Your task to perform on an android device: turn smart compose on in the gmail app Image 0: 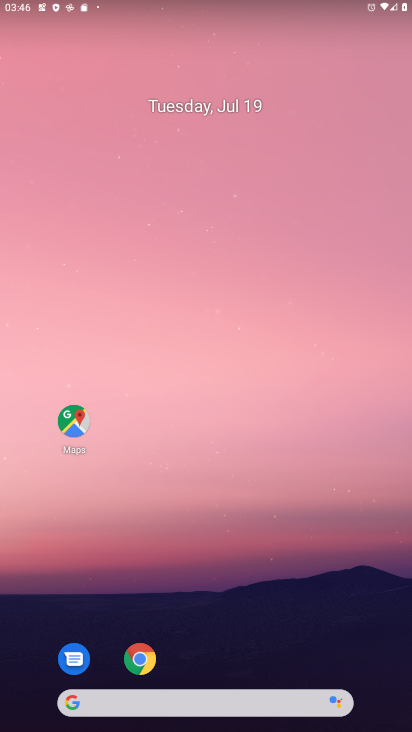
Step 0: press home button
Your task to perform on an android device: turn smart compose on in the gmail app Image 1: 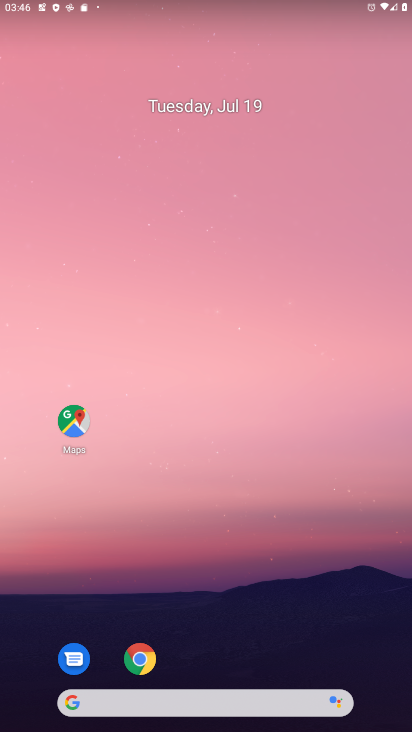
Step 1: press home button
Your task to perform on an android device: turn smart compose on in the gmail app Image 2: 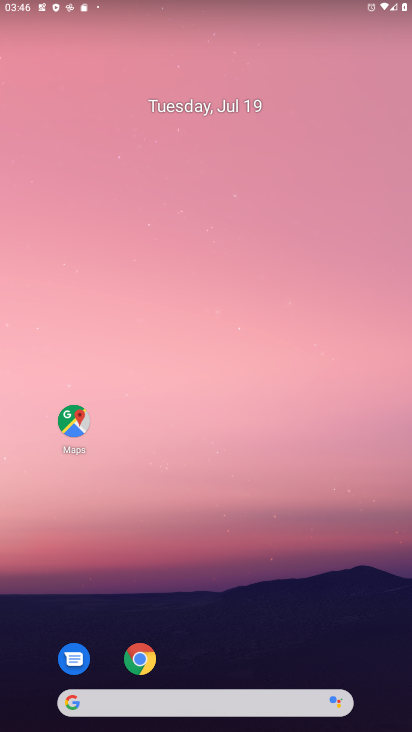
Step 2: press home button
Your task to perform on an android device: turn smart compose on in the gmail app Image 3: 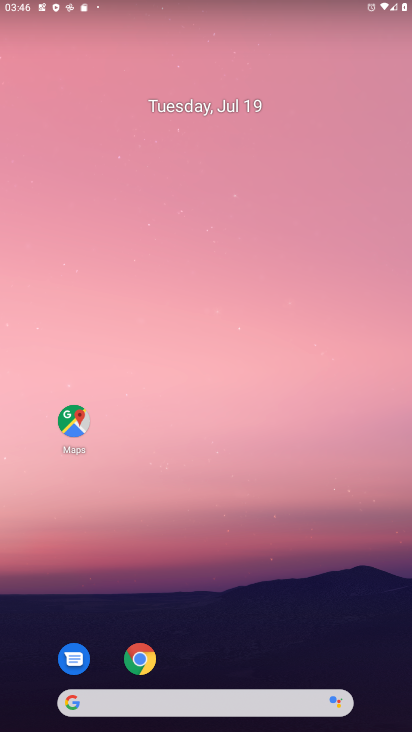
Step 3: drag from (272, 628) to (87, 22)
Your task to perform on an android device: turn smart compose on in the gmail app Image 4: 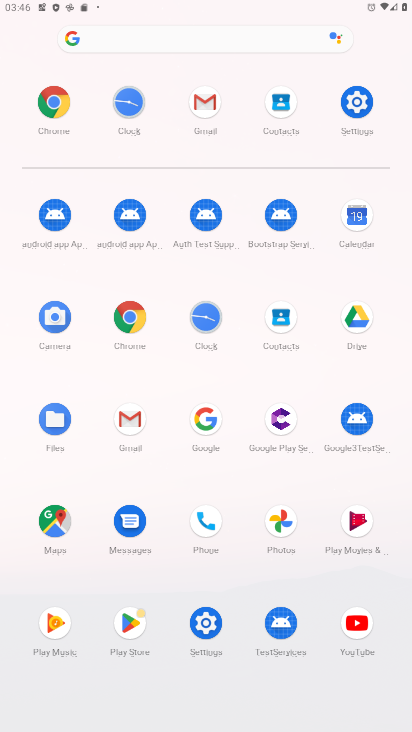
Step 4: click (137, 439)
Your task to perform on an android device: turn smart compose on in the gmail app Image 5: 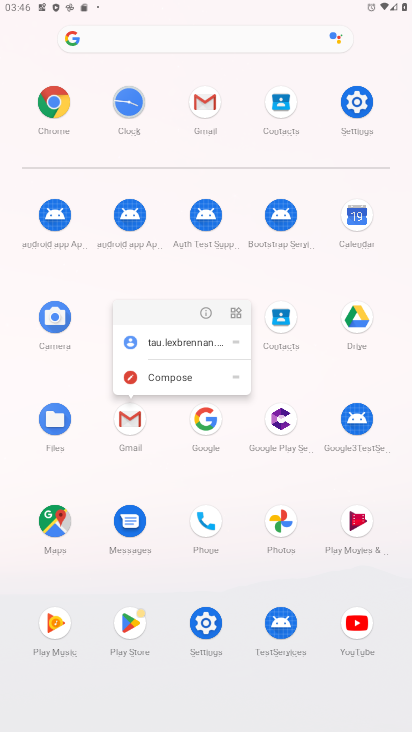
Step 5: click (147, 436)
Your task to perform on an android device: turn smart compose on in the gmail app Image 6: 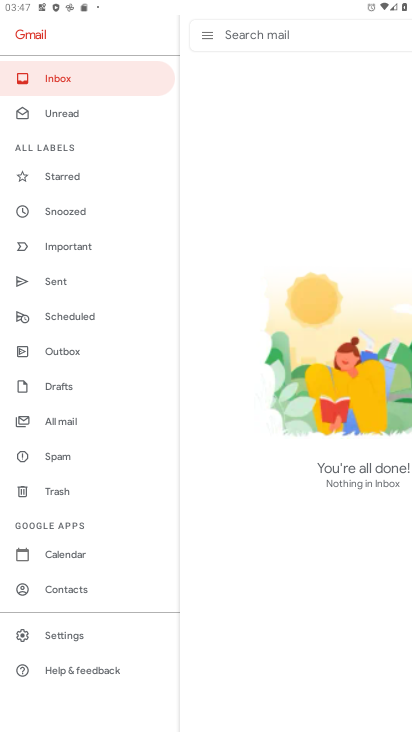
Step 6: click (30, 633)
Your task to perform on an android device: turn smart compose on in the gmail app Image 7: 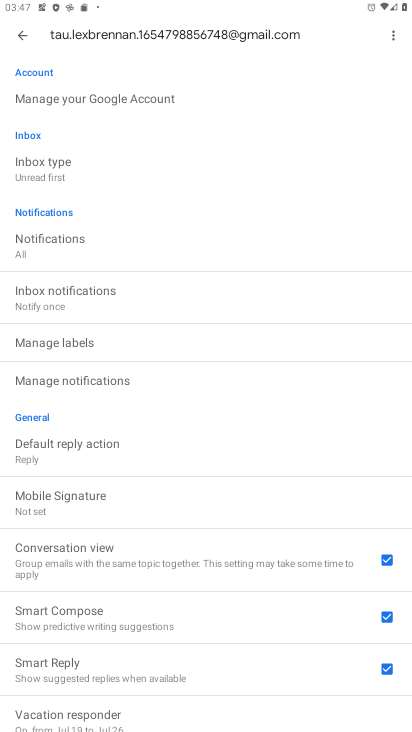
Step 7: task complete